Your task to perform on an android device: Turn on the flashlight Image 0: 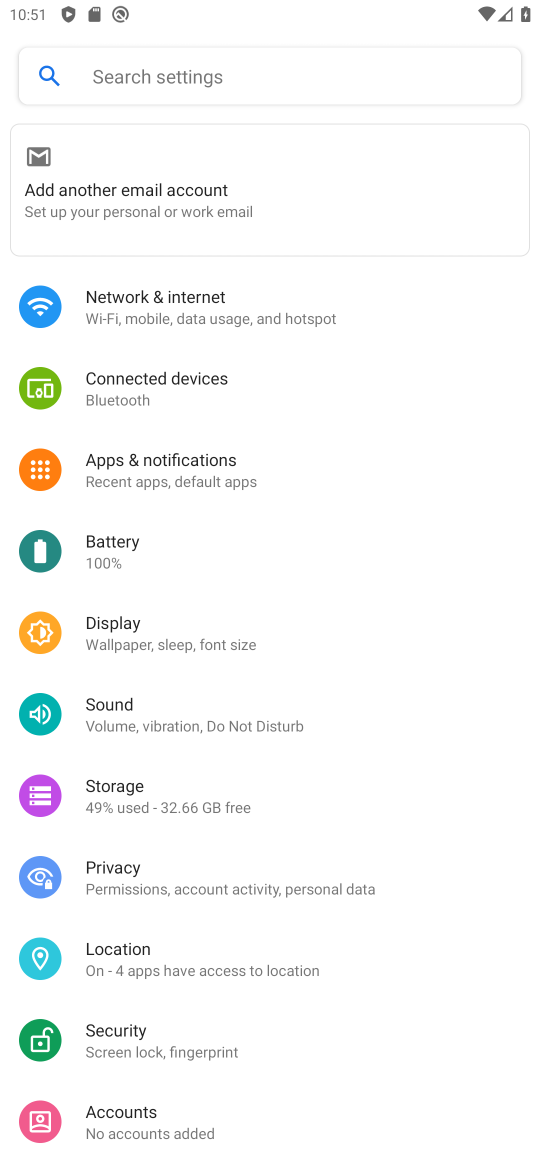
Step 0: task impossible